Your task to perform on an android device: Show the shopping cart on walmart. Add macbook pro 15 inch to the cart on walmart, then select checkout. Image 0: 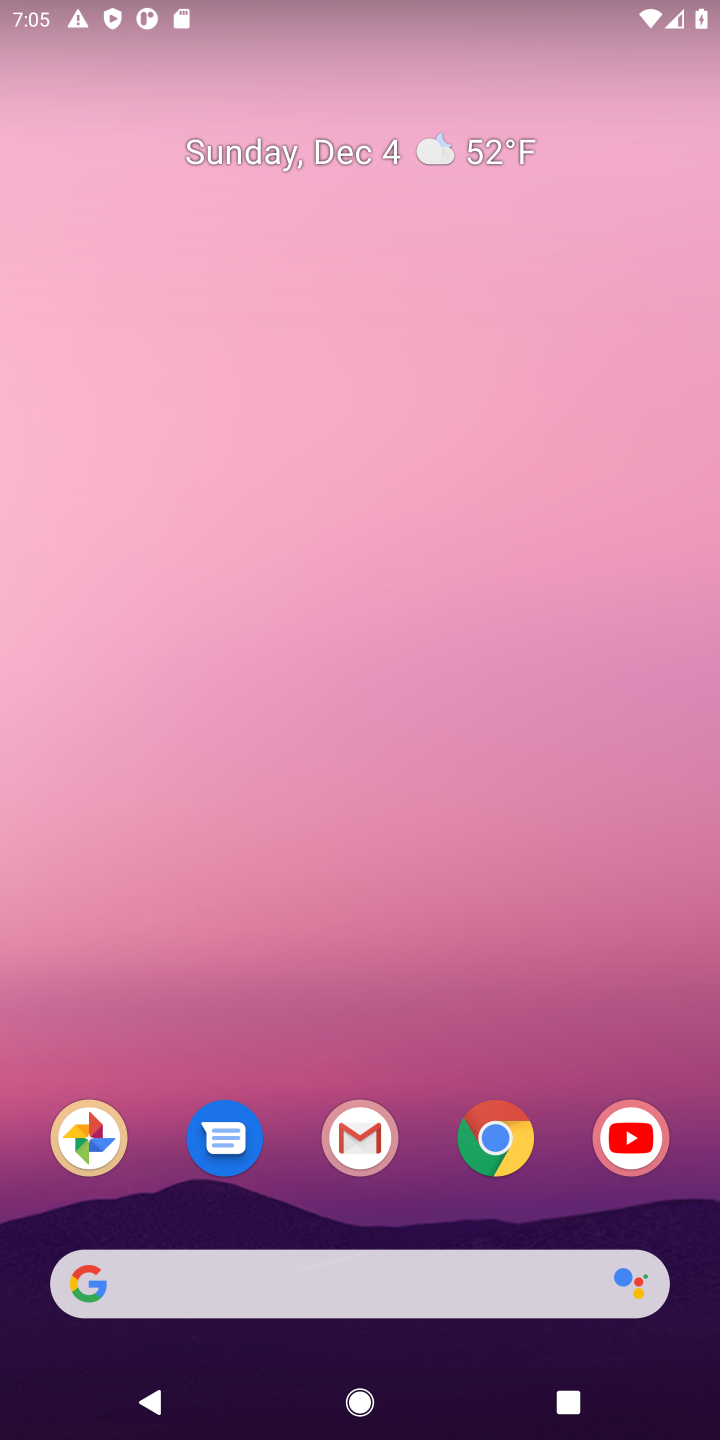
Step 0: click (506, 1142)
Your task to perform on an android device: Show the shopping cart on walmart. Add macbook pro 15 inch to the cart on walmart, then select checkout. Image 1: 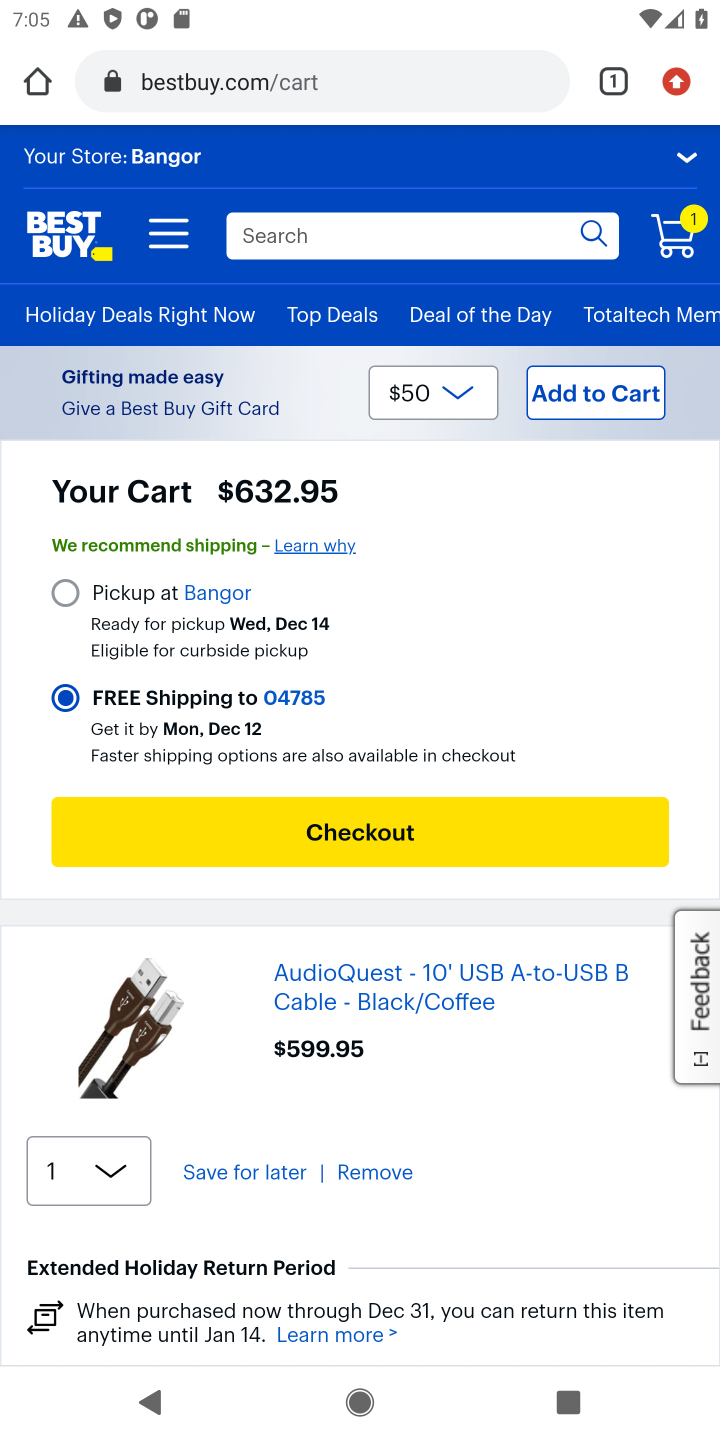
Step 1: click (419, 86)
Your task to perform on an android device: Show the shopping cart on walmart. Add macbook pro 15 inch to the cart on walmart, then select checkout. Image 2: 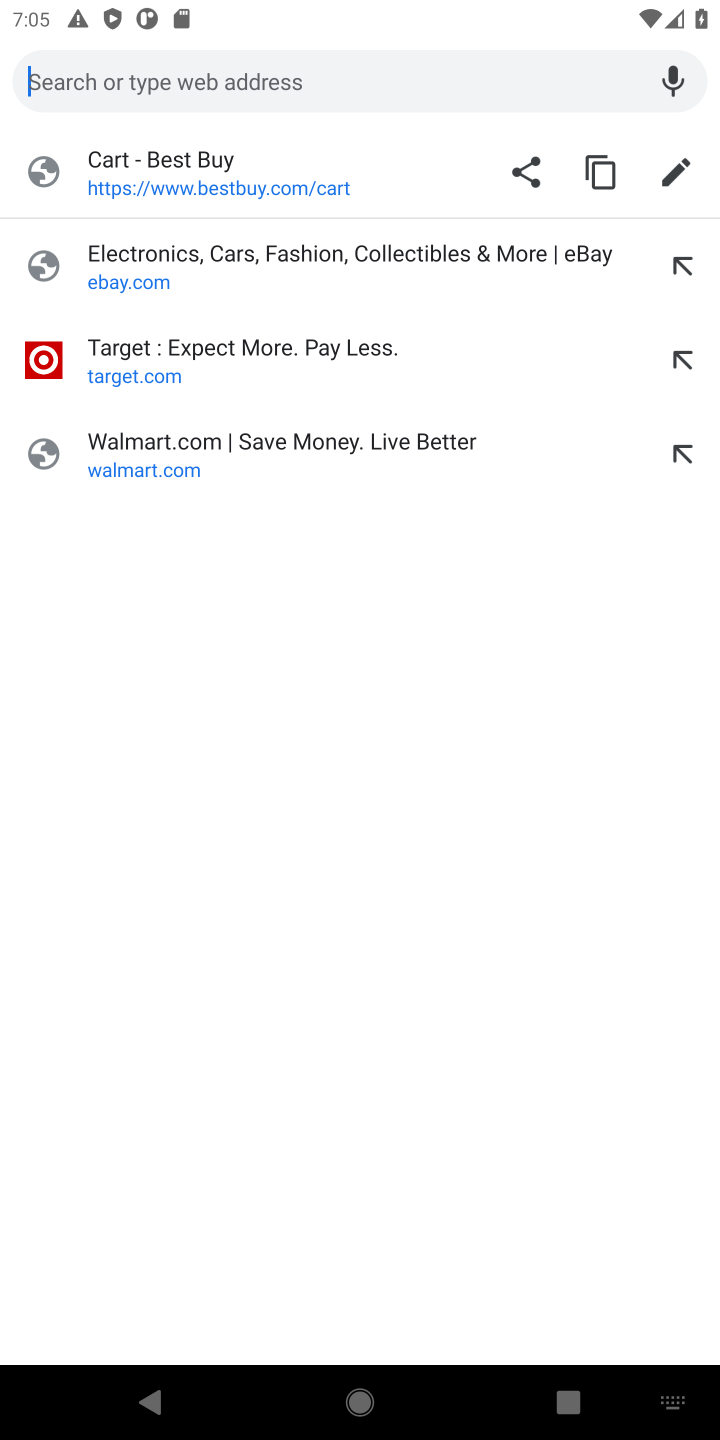
Step 2: type "walmart"
Your task to perform on an android device: Show the shopping cart on walmart. Add macbook pro 15 inch to the cart on walmart, then select checkout. Image 3: 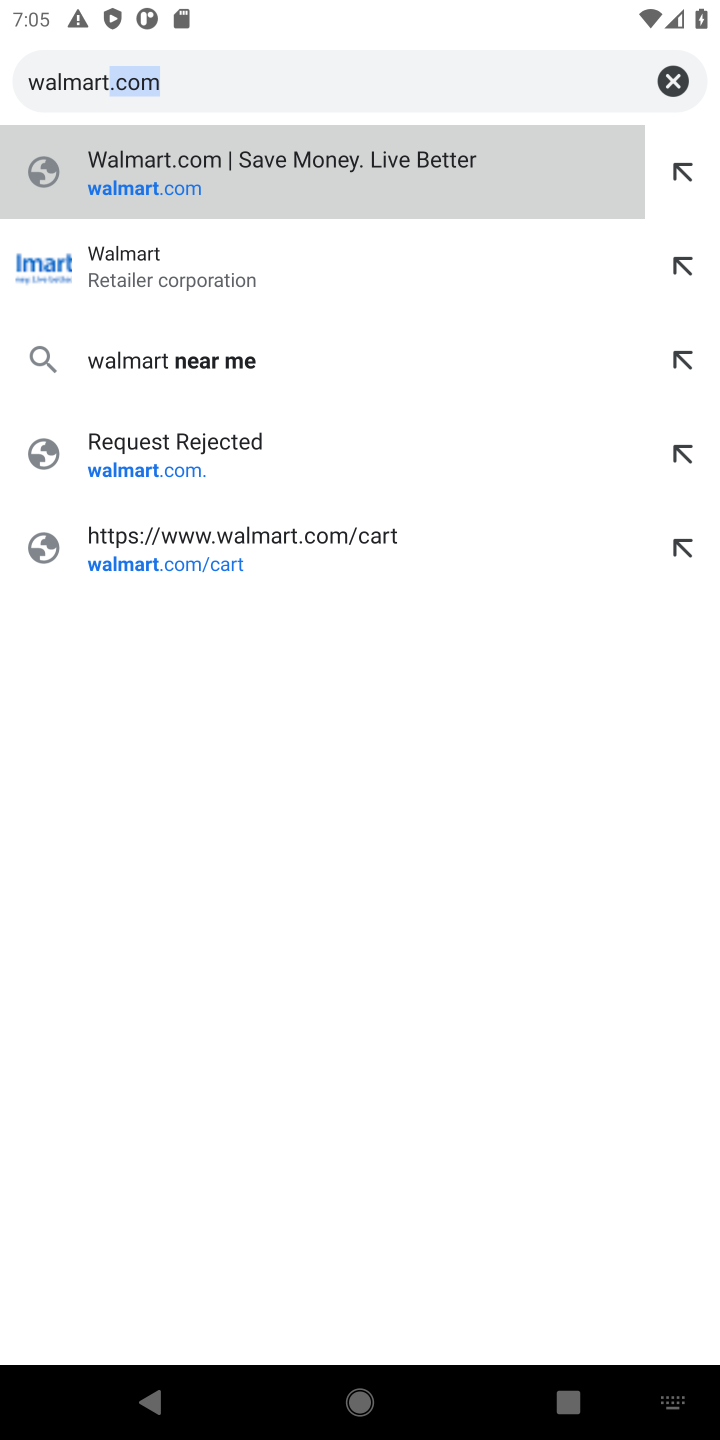
Step 3: press enter
Your task to perform on an android device: Show the shopping cart on walmart. Add macbook pro 15 inch to the cart on walmart, then select checkout. Image 4: 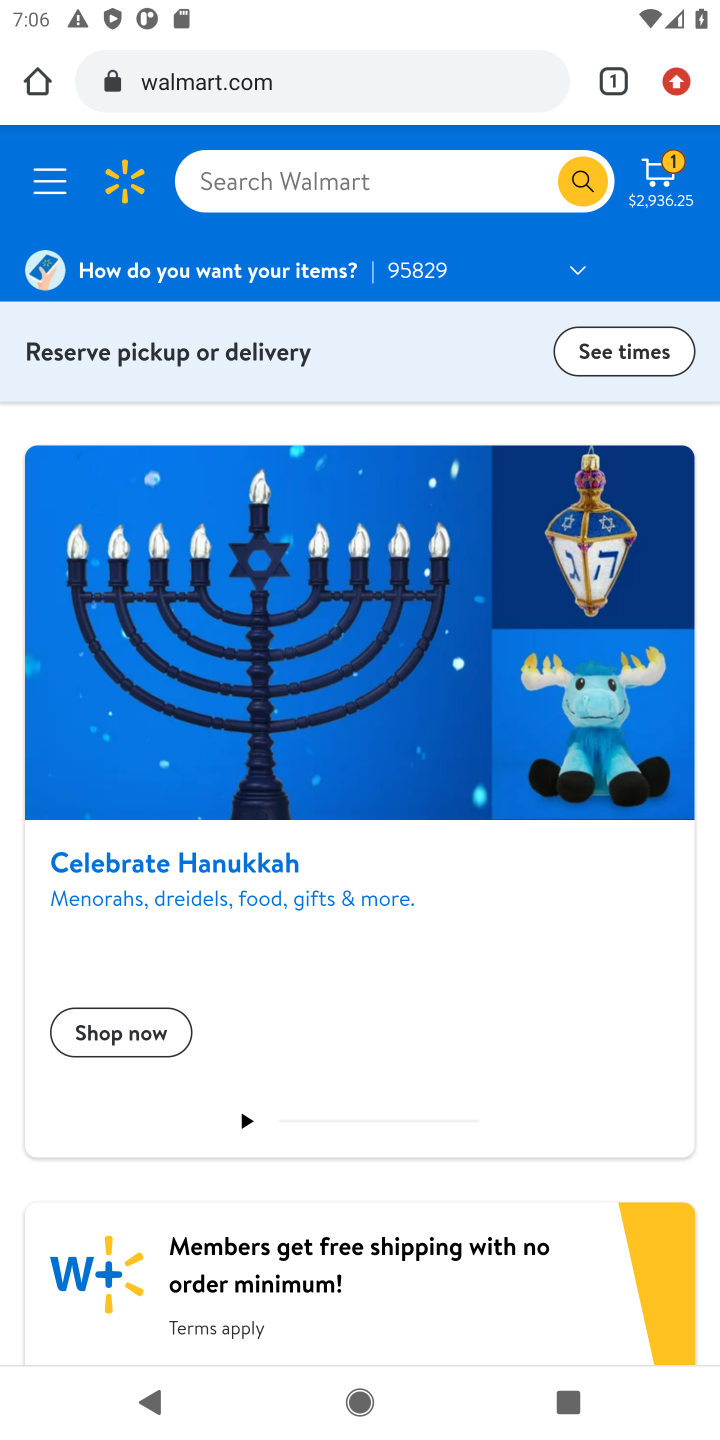
Step 4: click (655, 197)
Your task to perform on an android device: Show the shopping cart on walmart. Add macbook pro 15 inch to the cart on walmart, then select checkout. Image 5: 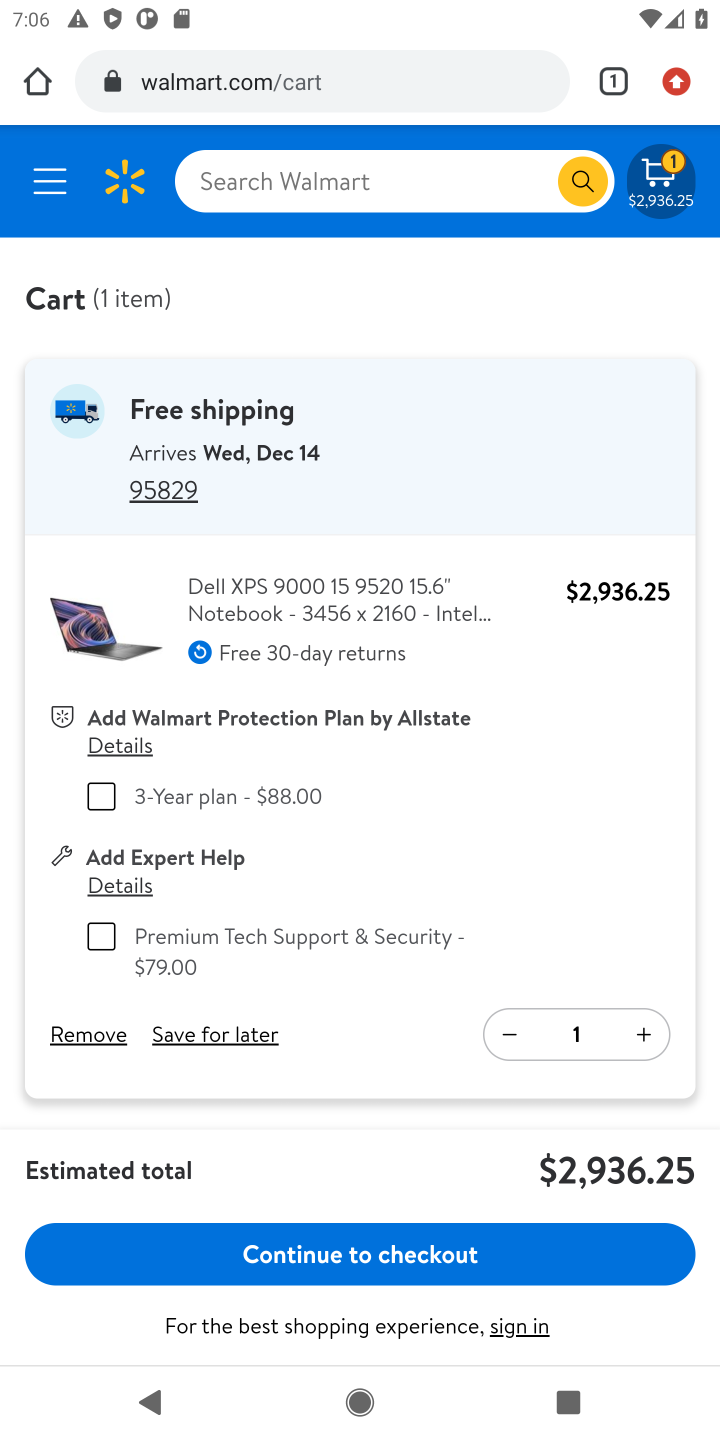
Step 5: click (394, 194)
Your task to perform on an android device: Show the shopping cart on walmart. Add macbook pro 15 inch to the cart on walmart, then select checkout. Image 6: 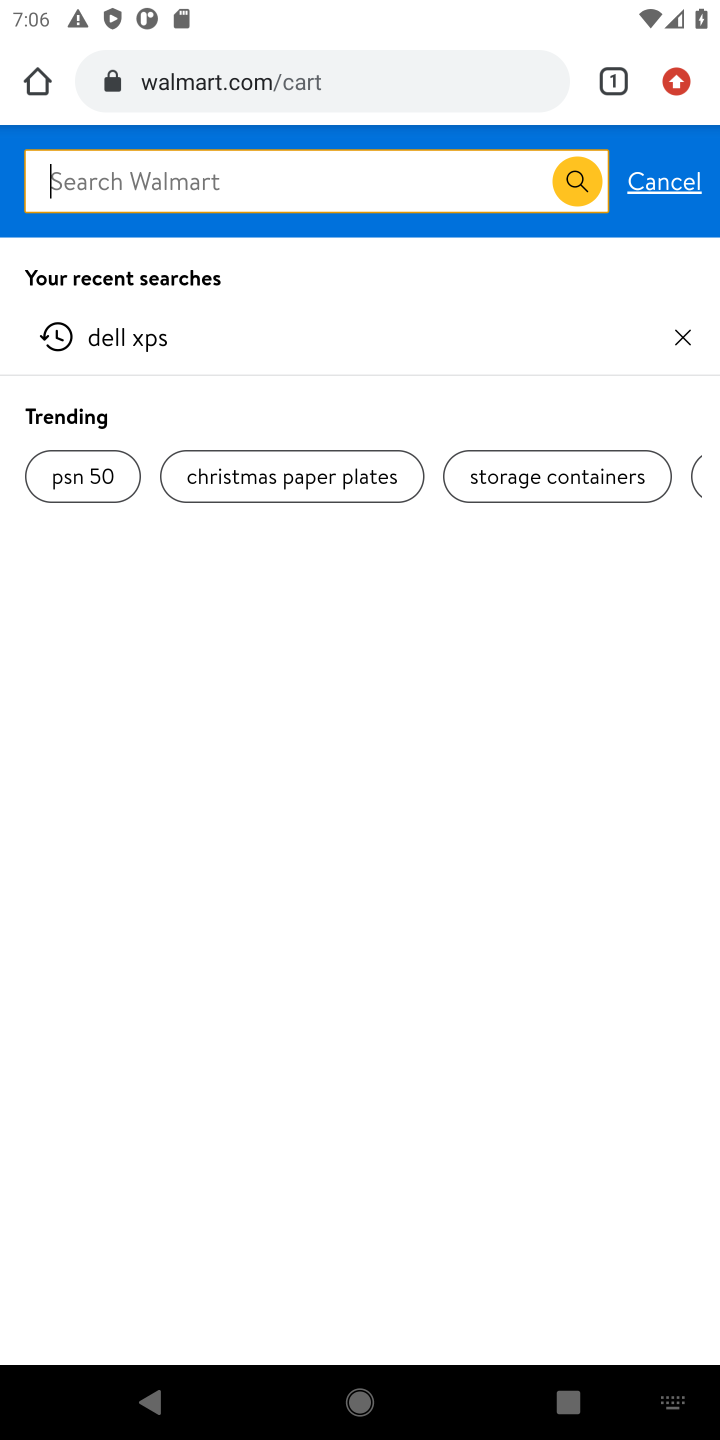
Step 6: type "macbook pro 15 inch"
Your task to perform on an android device: Show the shopping cart on walmart. Add macbook pro 15 inch to the cart on walmart, then select checkout. Image 7: 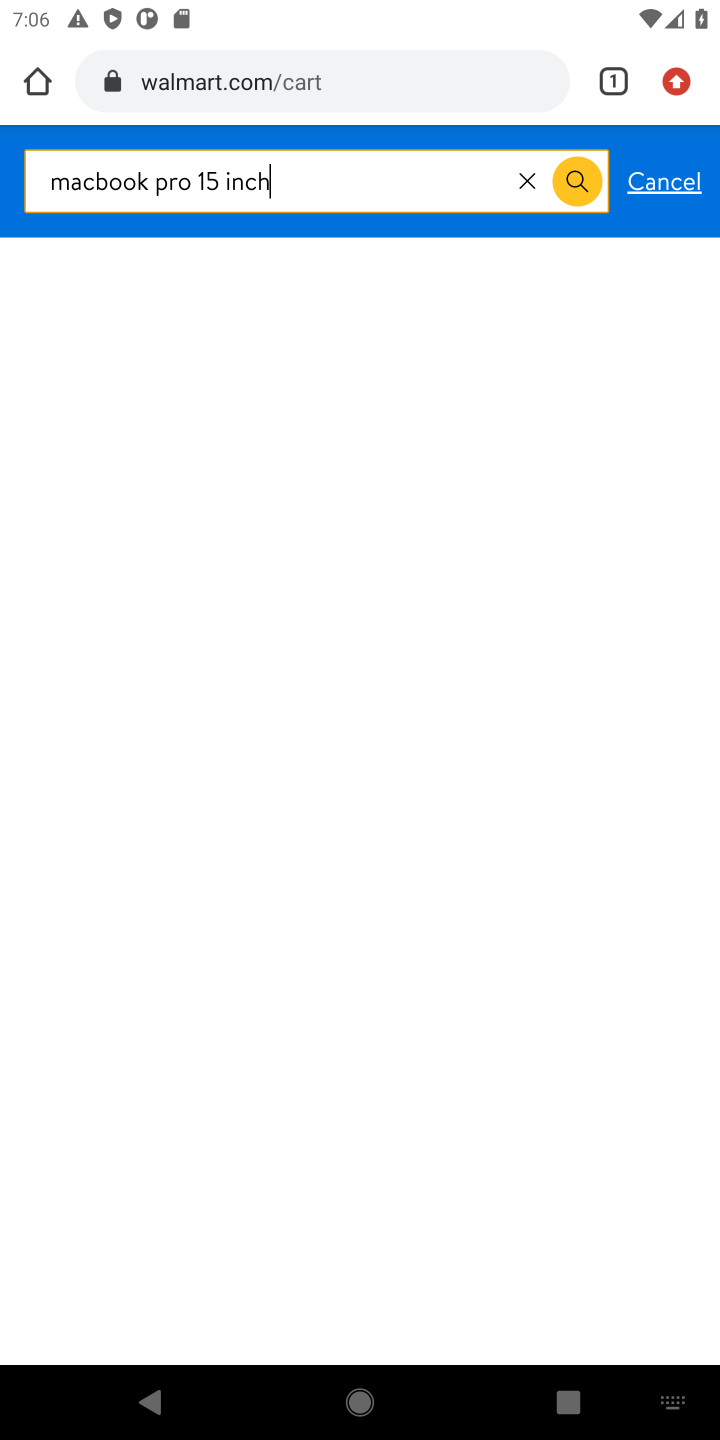
Step 7: press enter
Your task to perform on an android device: Show the shopping cart on walmart. Add macbook pro 15 inch to the cart on walmart, then select checkout. Image 8: 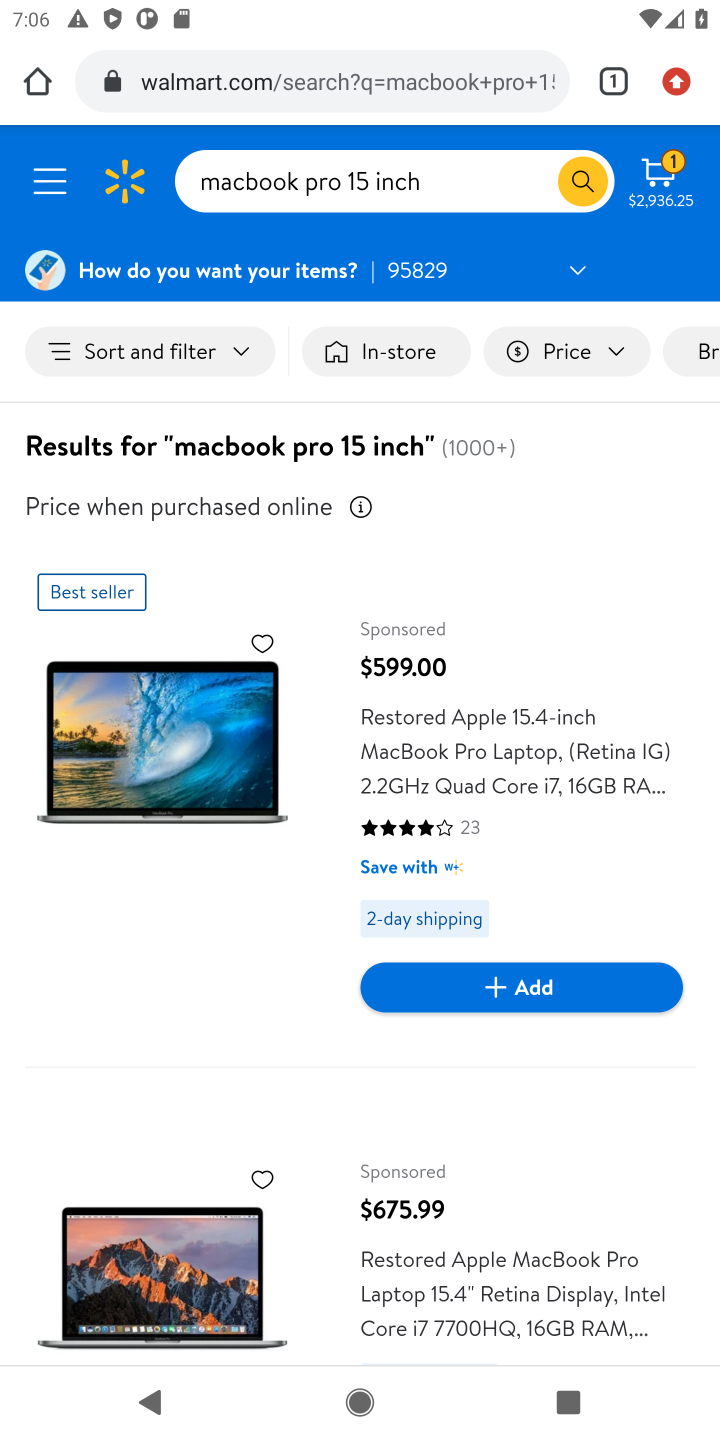
Step 8: drag from (565, 1015) to (511, 327)
Your task to perform on an android device: Show the shopping cart on walmart. Add macbook pro 15 inch to the cart on walmart, then select checkout. Image 9: 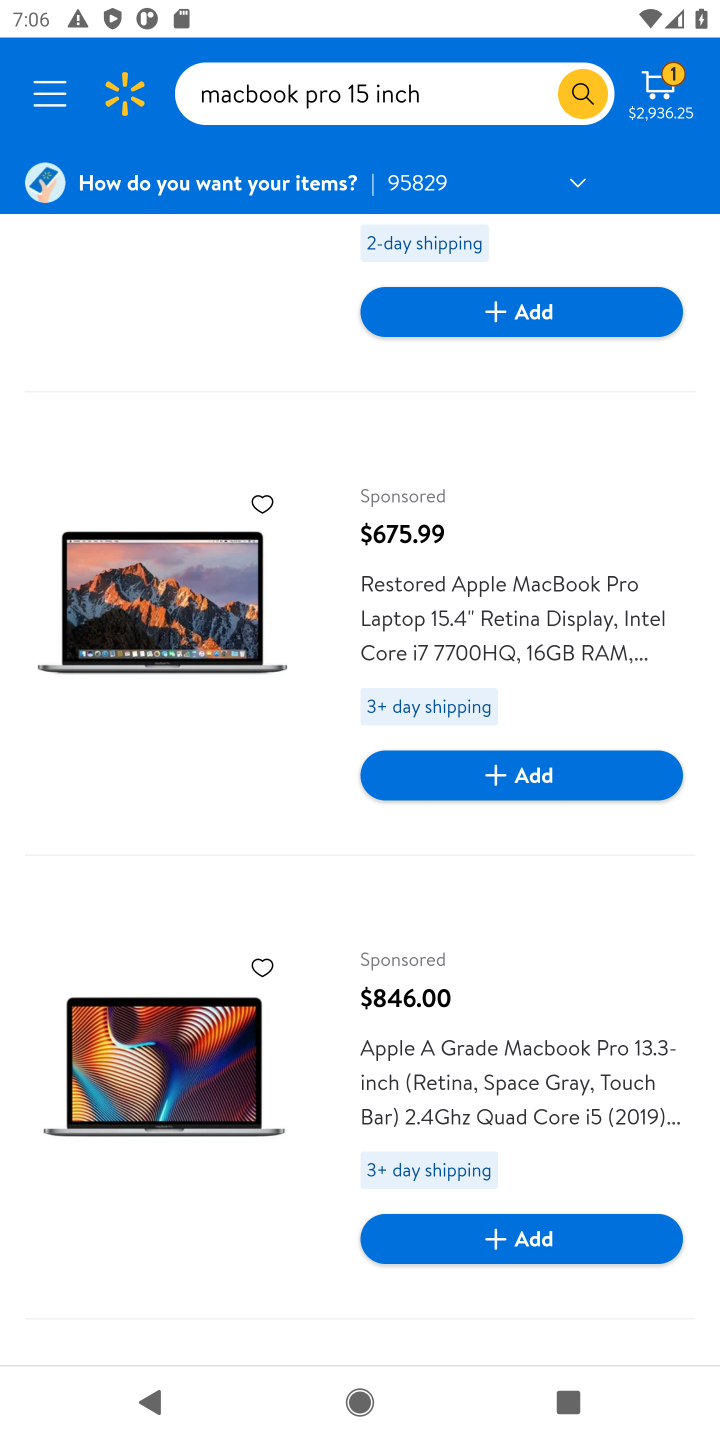
Step 9: drag from (657, 960) to (582, 352)
Your task to perform on an android device: Show the shopping cart on walmart. Add macbook pro 15 inch to the cart on walmart, then select checkout. Image 10: 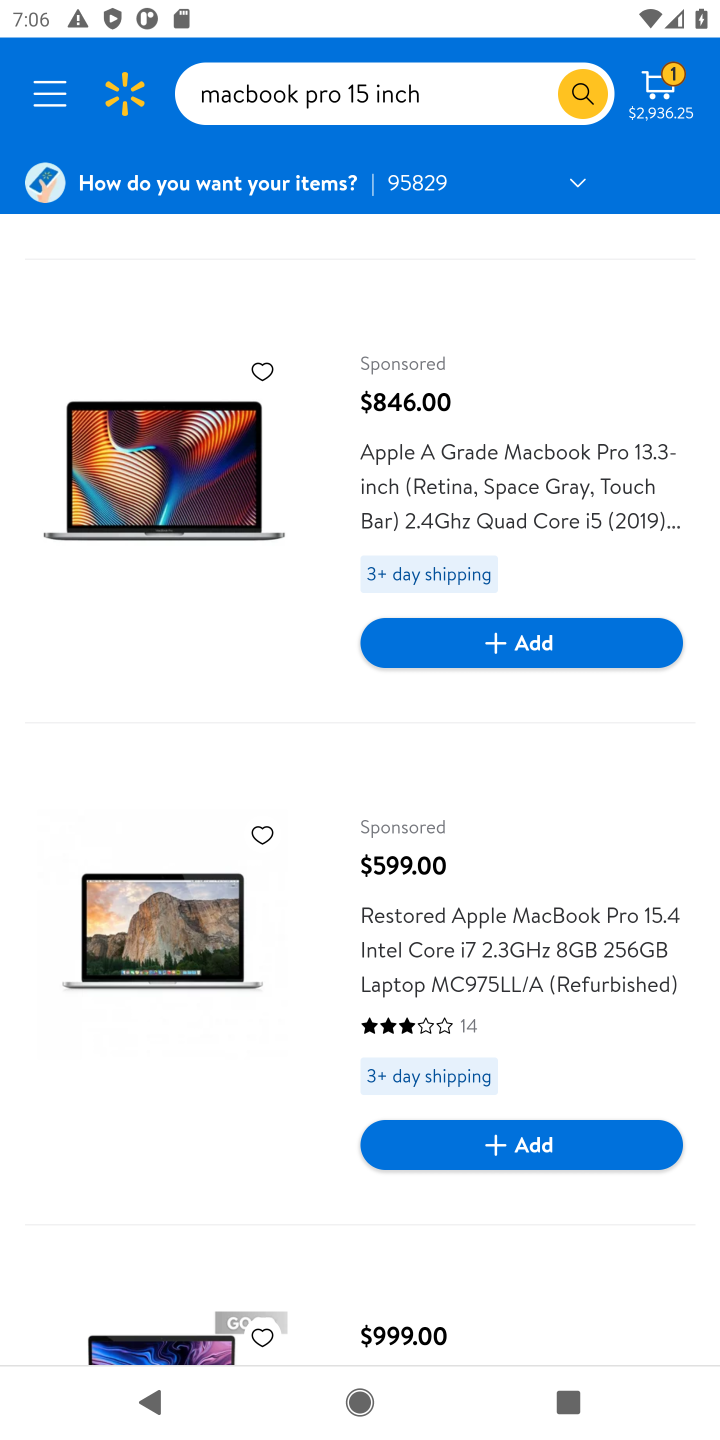
Step 10: drag from (645, 981) to (614, 517)
Your task to perform on an android device: Show the shopping cart on walmart. Add macbook pro 15 inch to the cart on walmart, then select checkout. Image 11: 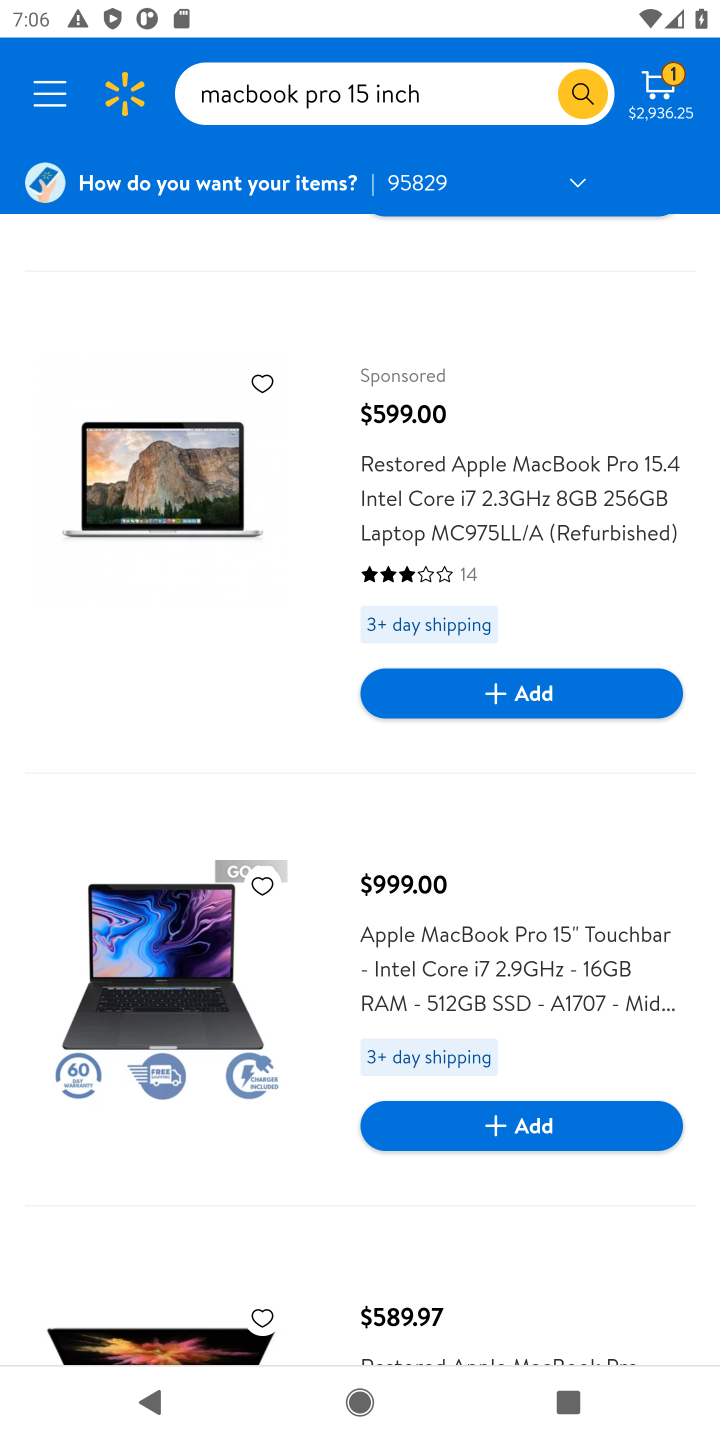
Step 11: click (164, 975)
Your task to perform on an android device: Show the shopping cart on walmart. Add macbook pro 15 inch to the cart on walmart, then select checkout. Image 12: 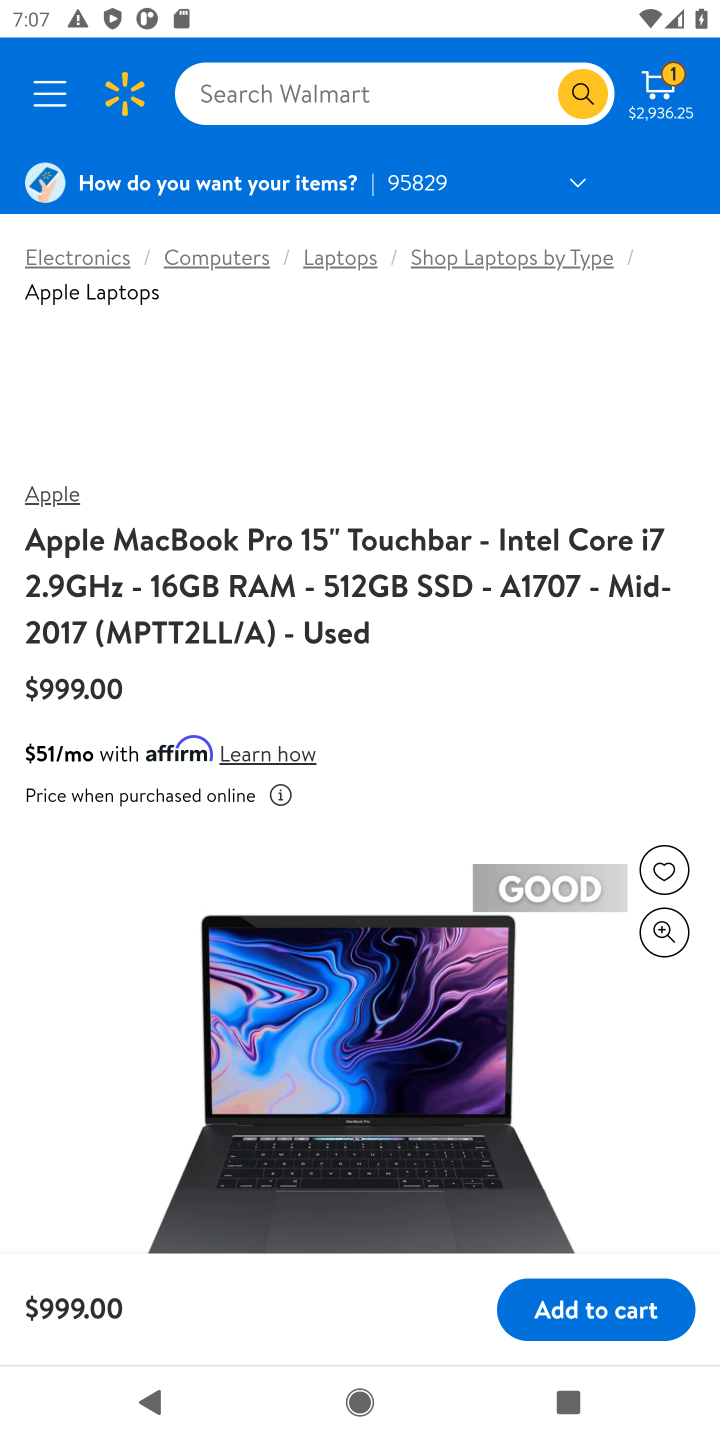
Step 12: click (570, 1309)
Your task to perform on an android device: Show the shopping cart on walmart. Add macbook pro 15 inch to the cart on walmart, then select checkout. Image 13: 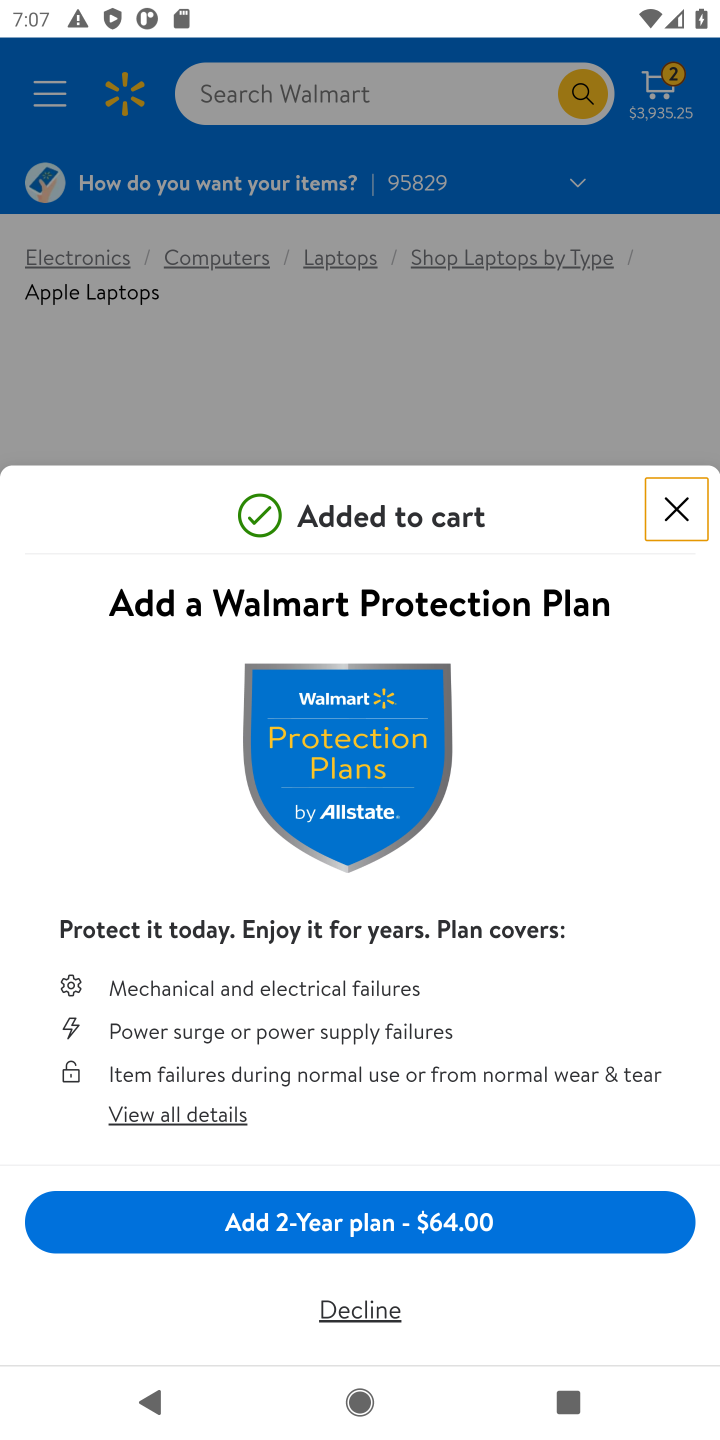
Step 13: click (675, 507)
Your task to perform on an android device: Show the shopping cart on walmart. Add macbook pro 15 inch to the cart on walmart, then select checkout. Image 14: 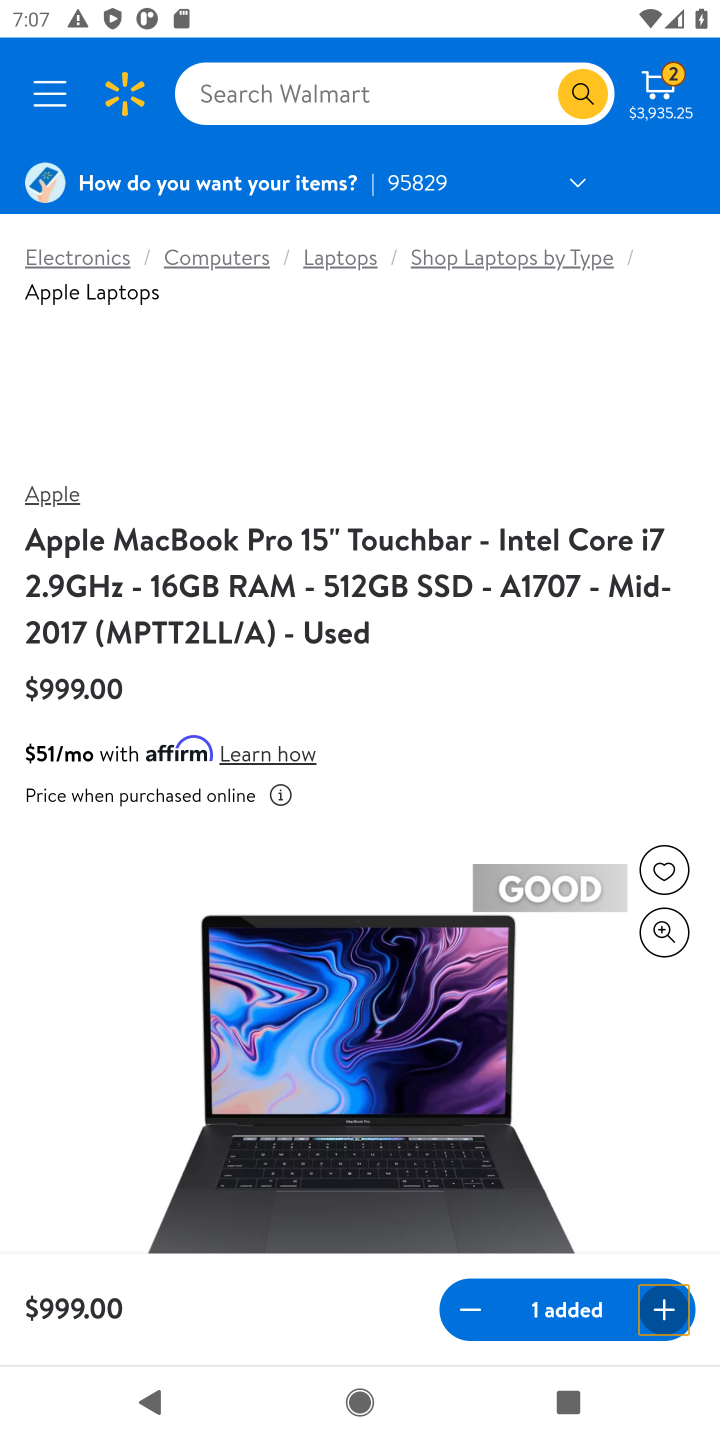
Step 14: click (669, 86)
Your task to perform on an android device: Show the shopping cart on walmart. Add macbook pro 15 inch to the cart on walmart, then select checkout. Image 15: 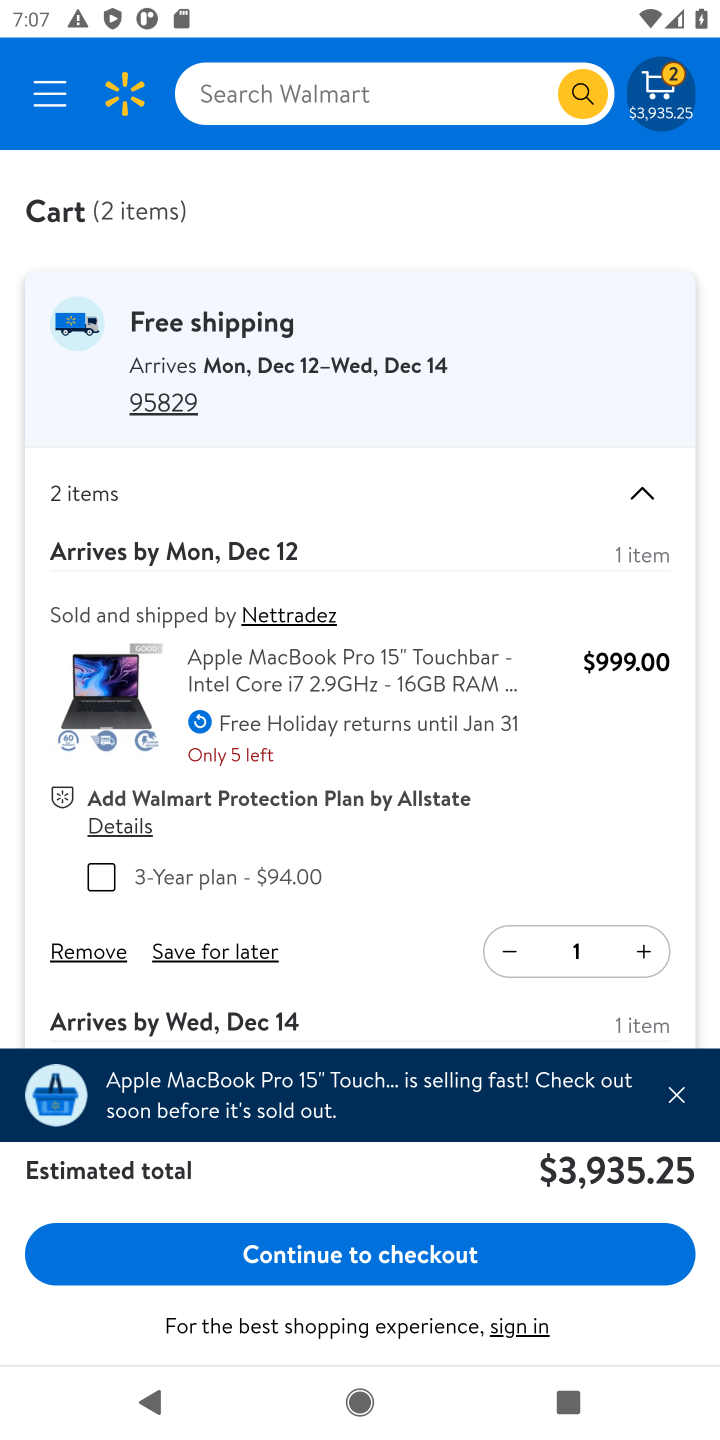
Step 15: click (436, 1250)
Your task to perform on an android device: Show the shopping cart on walmart. Add macbook pro 15 inch to the cart on walmart, then select checkout. Image 16: 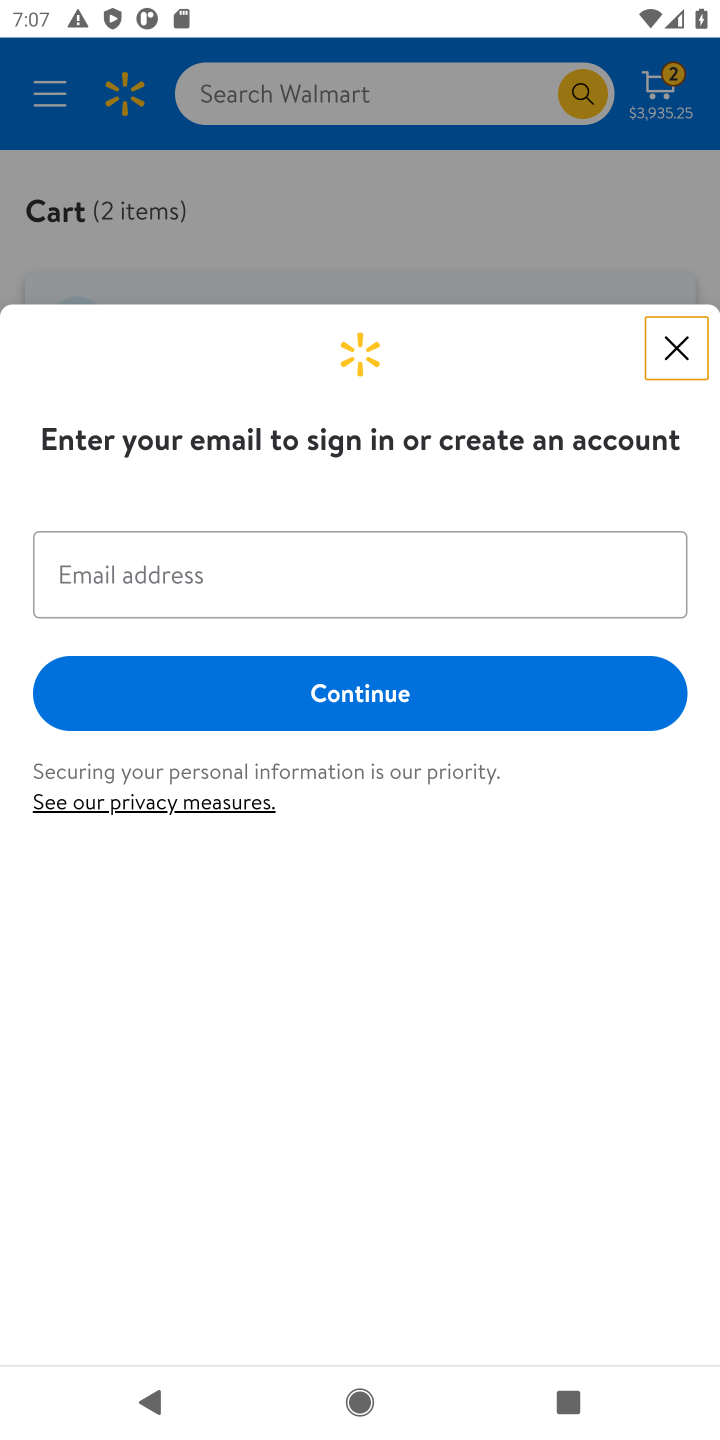
Step 16: task complete